Your task to perform on an android device: Search for logitech g pro on target, select the first entry, and add it to the cart. Image 0: 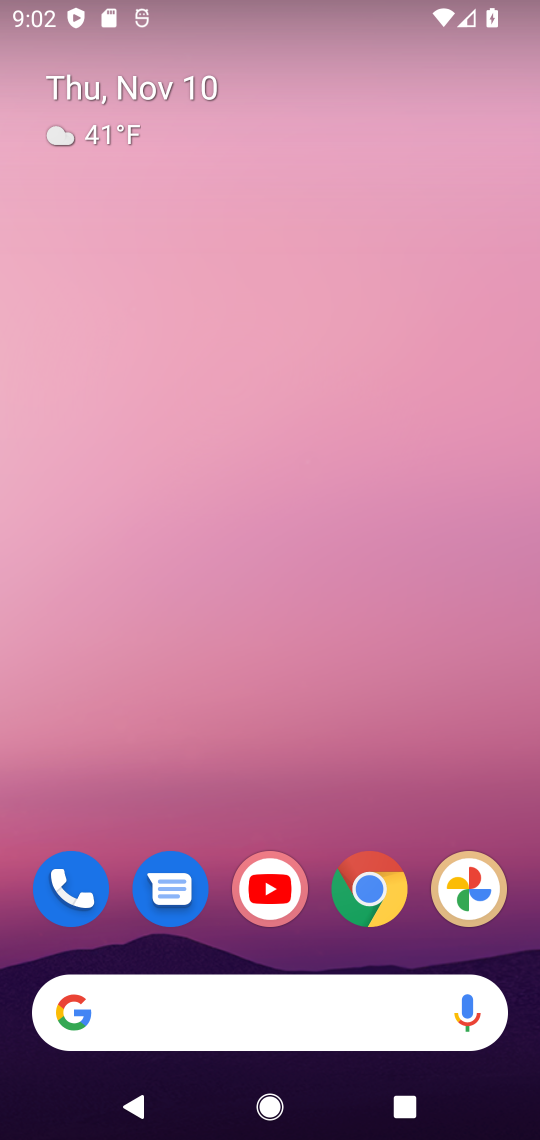
Step 0: click (373, 899)
Your task to perform on an android device: Search for logitech g pro on target, select the first entry, and add it to the cart. Image 1: 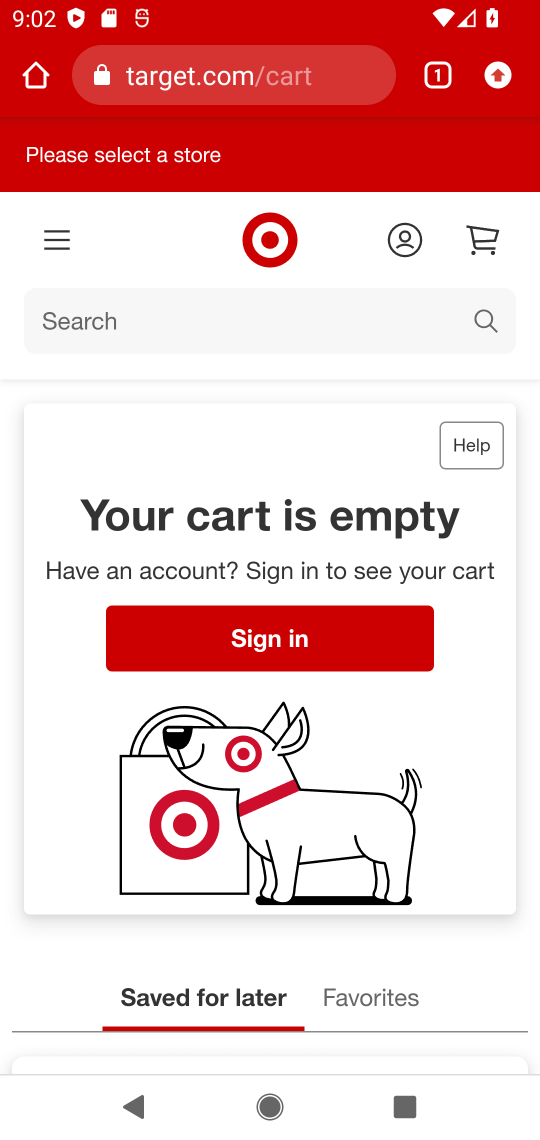
Step 1: click (236, 323)
Your task to perform on an android device: Search for logitech g pro on target, select the first entry, and add it to the cart. Image 2: 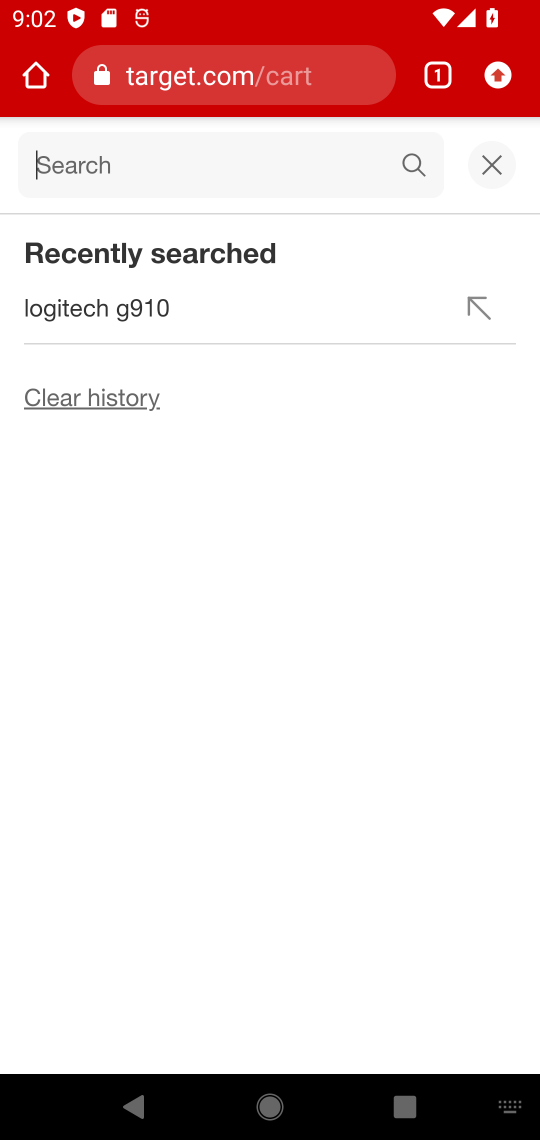
Step 2: click (36, 156)
Your task to perform on an android device: Search for logitech g pro on target, select the first entry, and add it to the cart. Image 3: 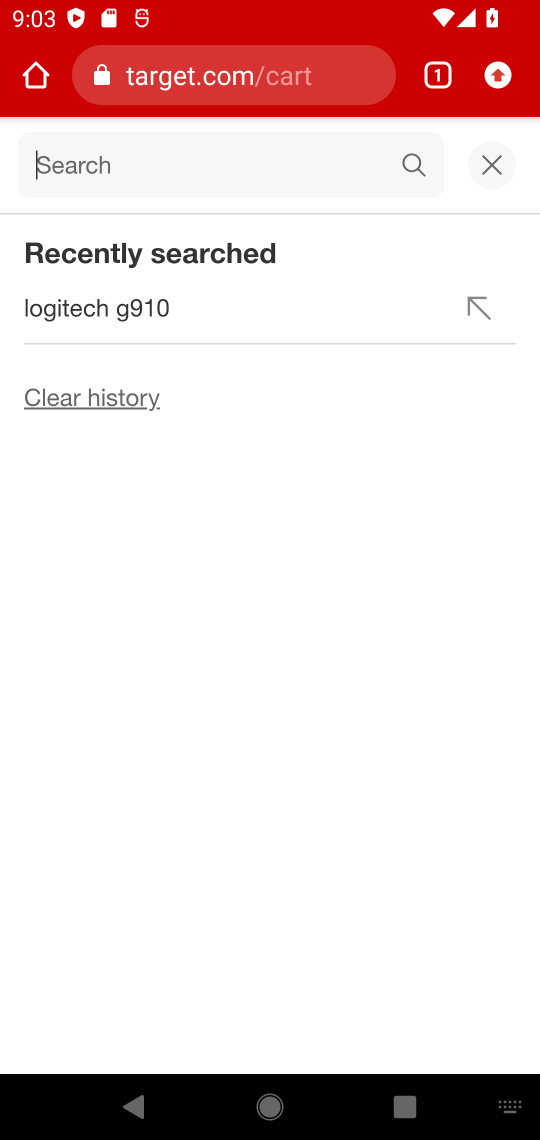
Step 3: type "logitech g pro"
Your task to perform on an android device: Search for logitech g pro on target, select the first entry, and add it to the cart. Image 4: 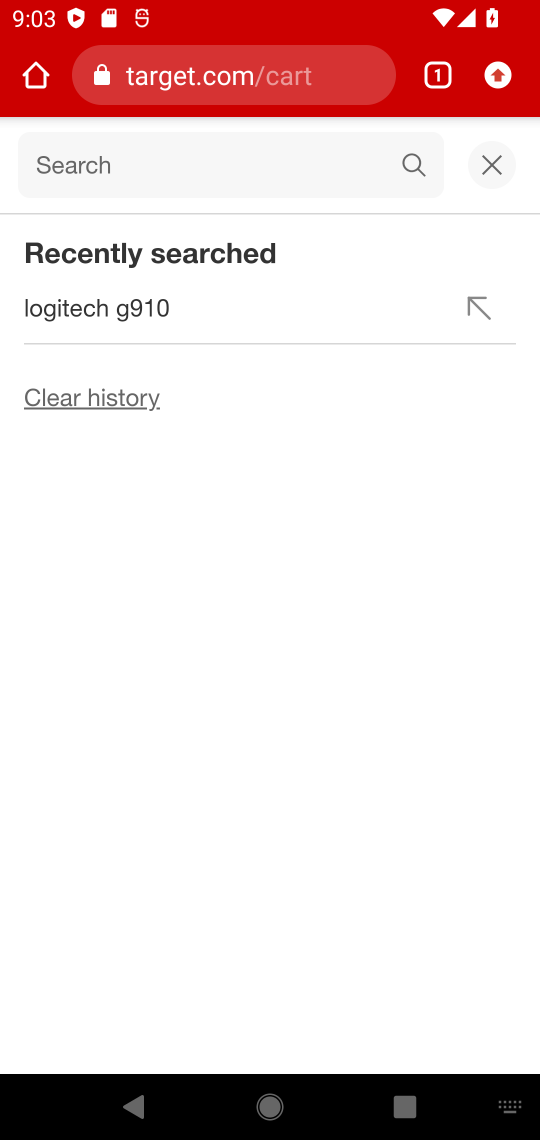
Step 4: press enter
Your task to perform on an android device: Search for logitech g pro on target, select the first entry, and add it to the cart. Image 5: 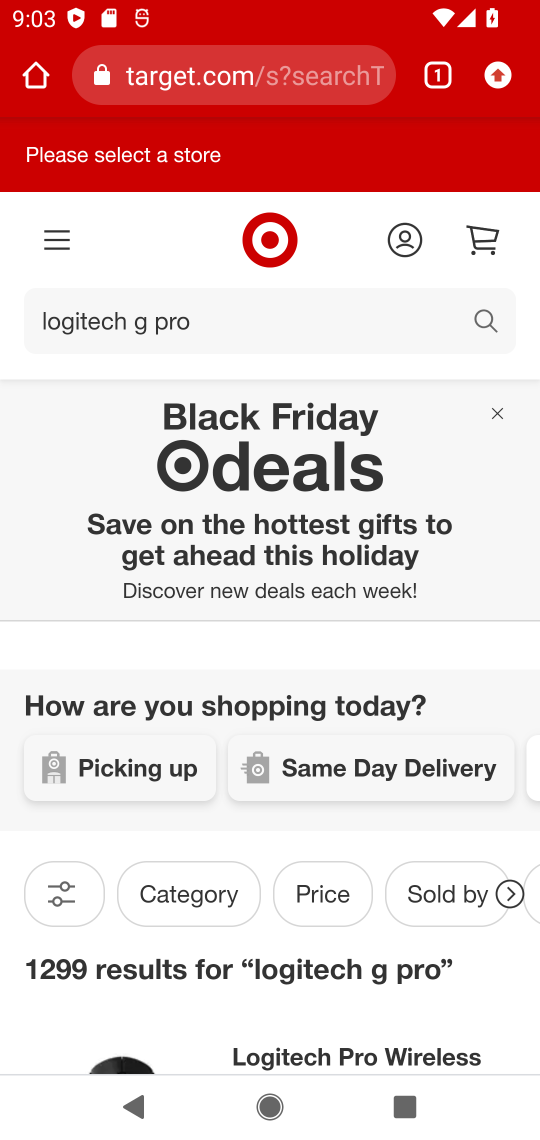
Step 5: task complete